Your task to perform on an android device: turn on priority inbox in the gmail app Image 0: 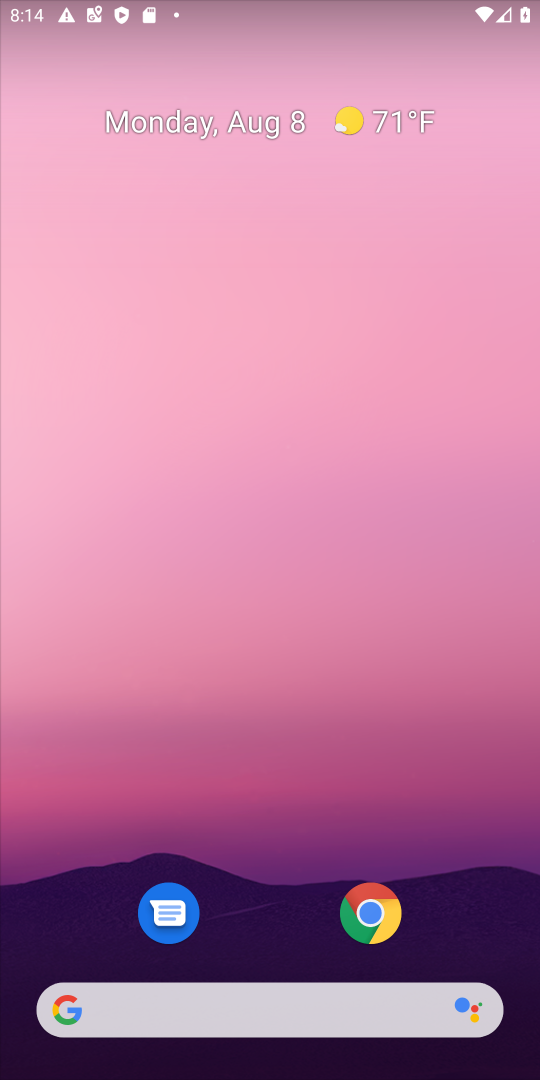
Step 0: drag from (300, 1022) to (510, 162)
Your task to perform on an android device: turn on priority inbox in the gmail app Image 1: 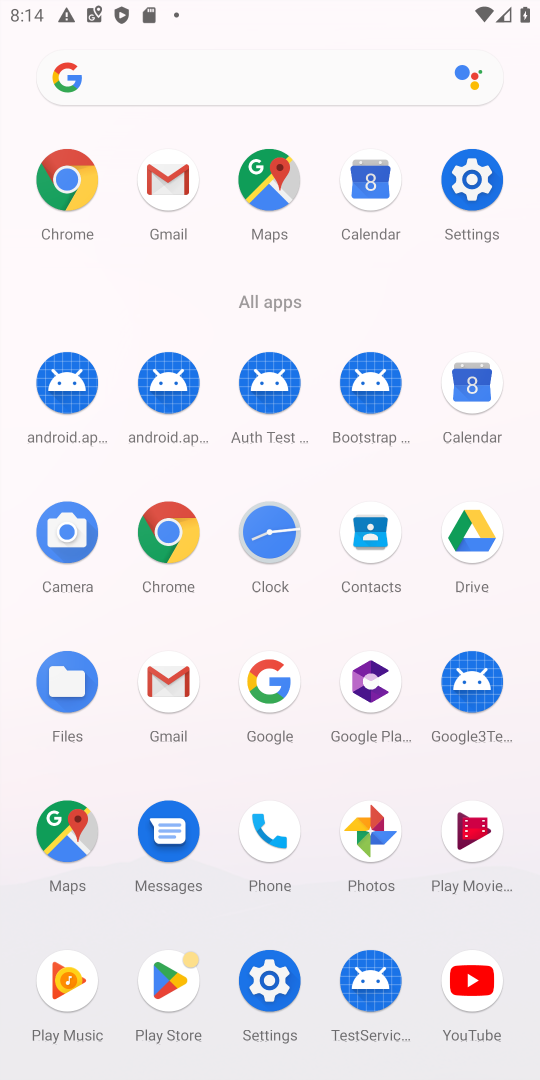
Step 1: click (167, 175)
Your task to perform on an android device: turn on priority inbox in the gmail app Image 2: 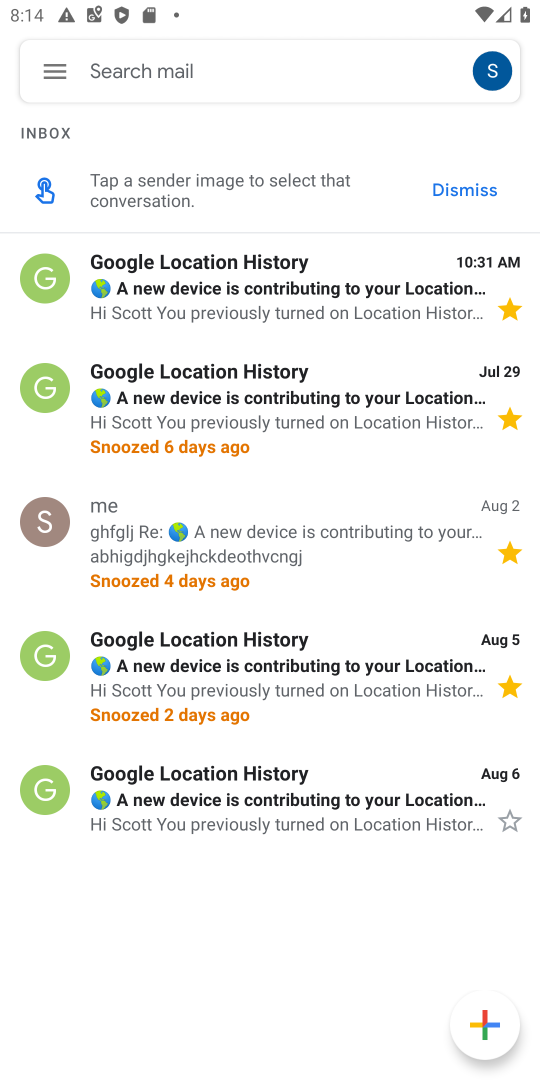
Step 2: click (59, 74)
Your task to perform on an android device: turn on priority inbox in the gmail app Image 3: 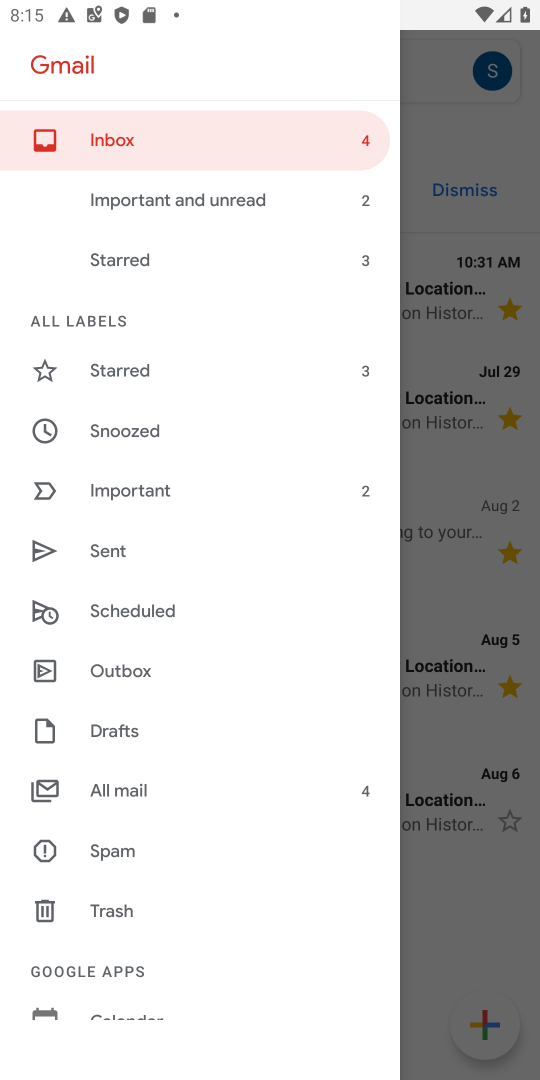
Step 3: drag from (142, 828) to (202, 690)
Your task to perform on an android device: turn on priority inbox in the gmail app Image 4: 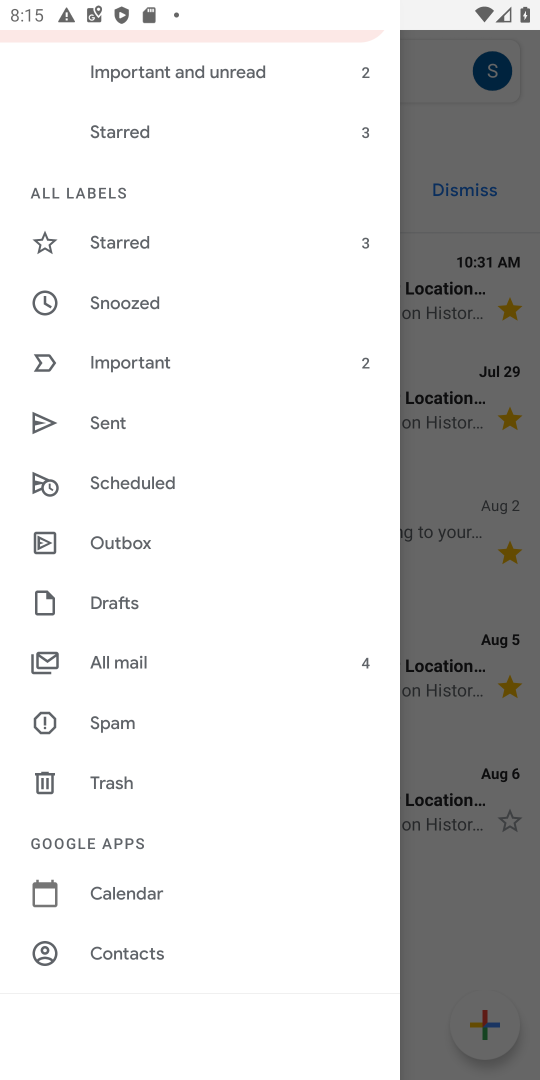
Step 4: drag from (121, 865) to (197, 704)
Your task to perform on an android device: turn on priority inbox in the gmail app Image 5: 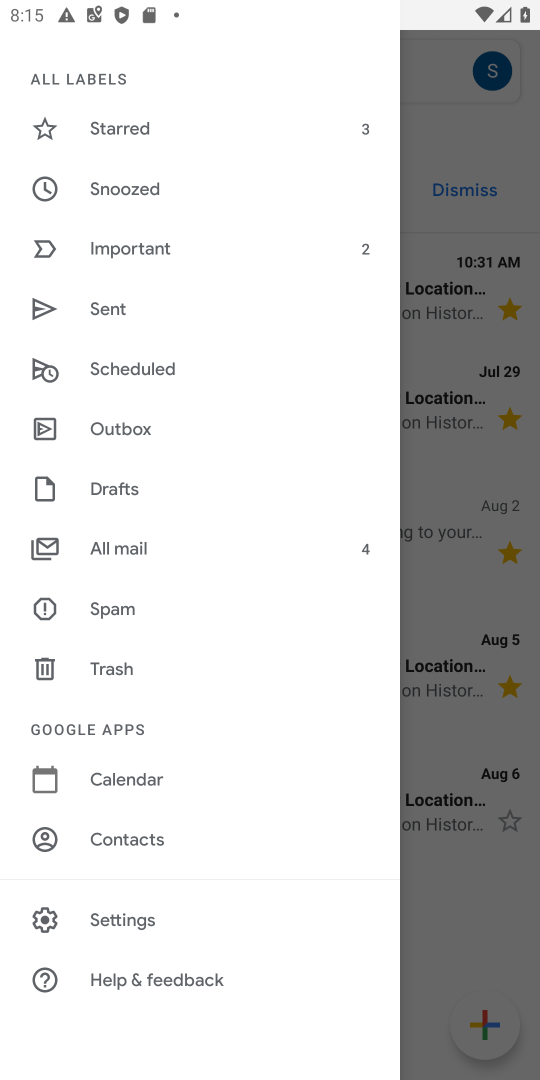
Step 5: click (123, 921)
Your task to perform on an android device: turn on priority inbox in the gmail app Image 6: 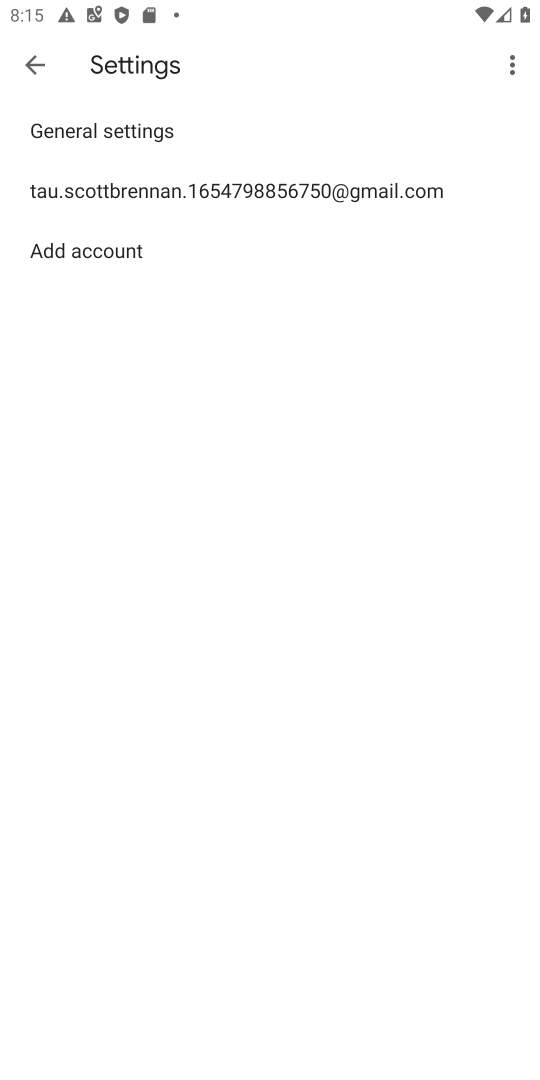
Step 6: click (375, 194)
Your task to perform on an android device: turn on priority inbox in the gmail app Image 7: 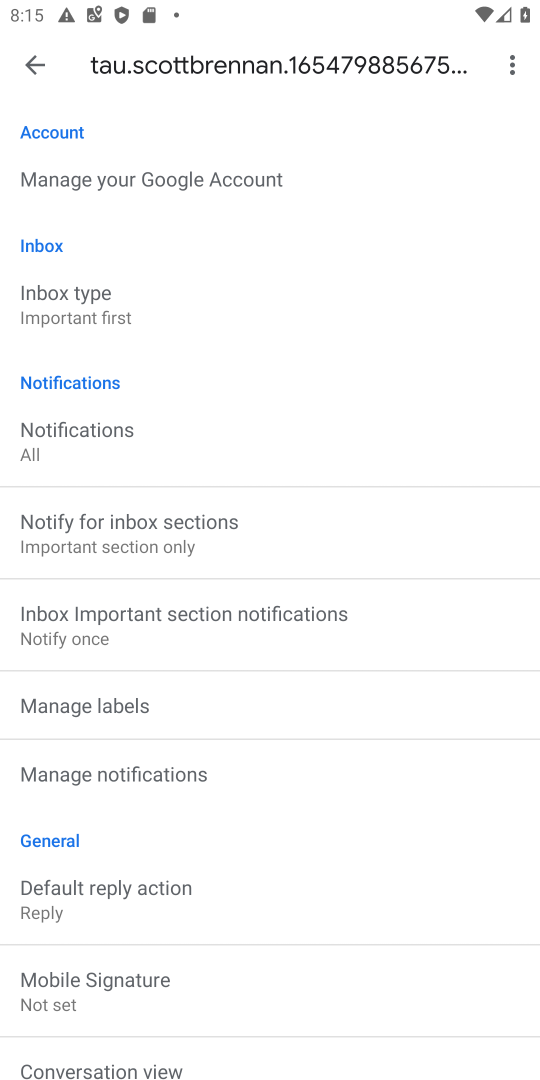
Step 7: click (86, 303)
Your task to perform on an android device: turn on priority inbox in the gmail app Image 8: 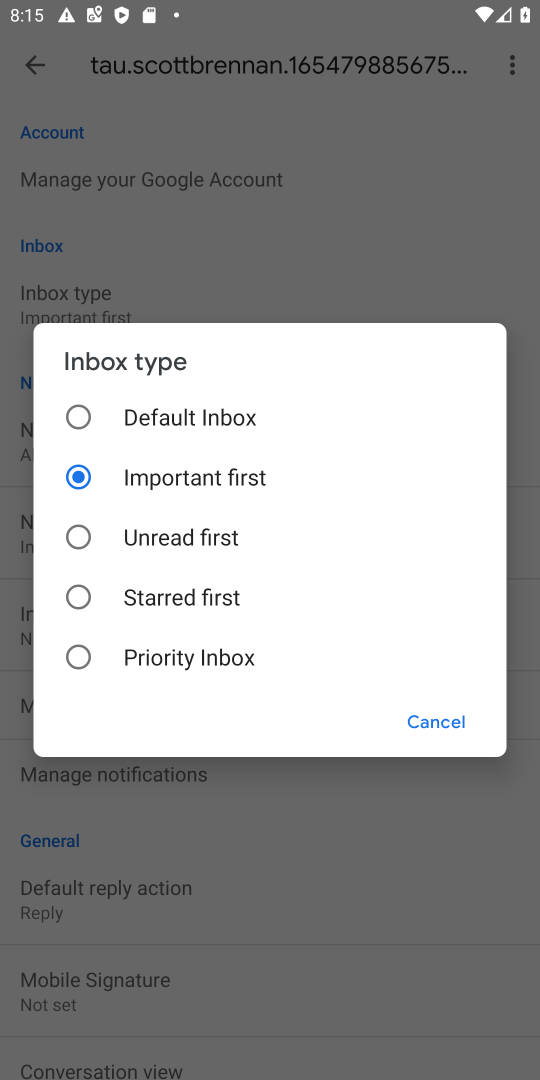
Step 8: click (75, 654)
Your task to perform on an android device: turn on priority inbox in the gmail app Image 9: 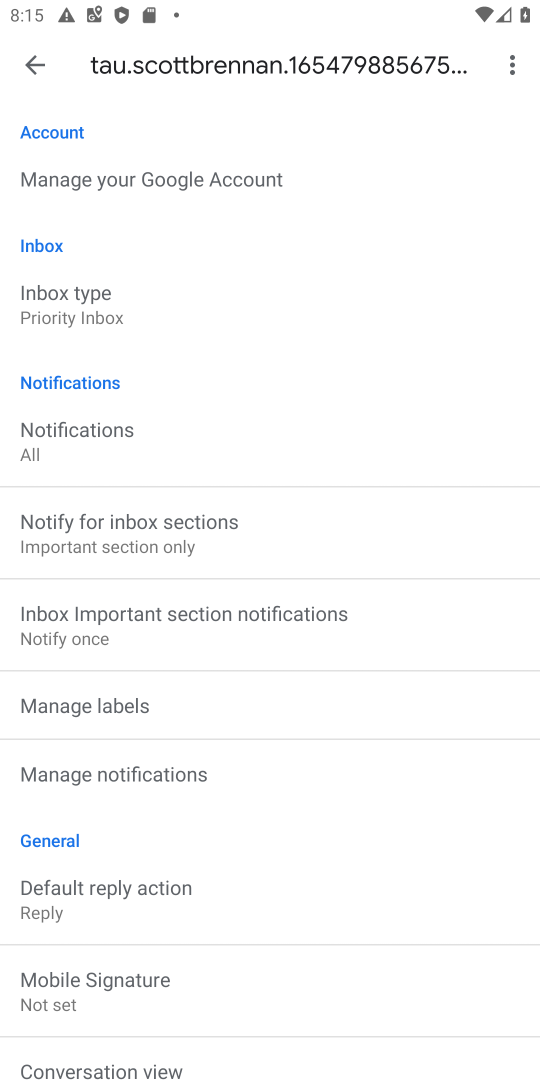
Step 9: task complete